Your task to perform on an android device: toggle sleep mode Image 0: 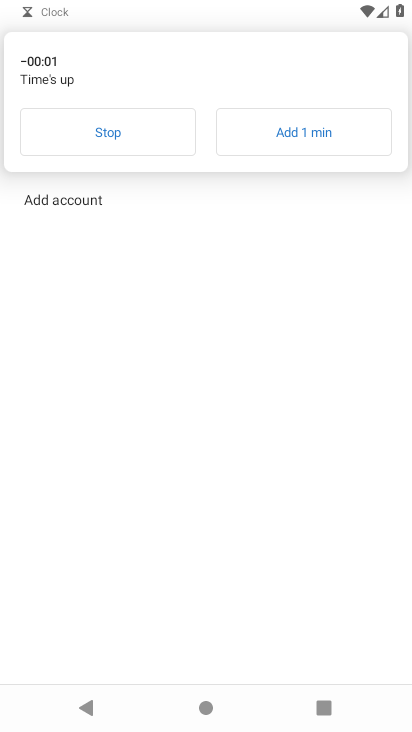
Step 0: press home button
Your task to perform on an android device: toggle sleep mode Image 1: 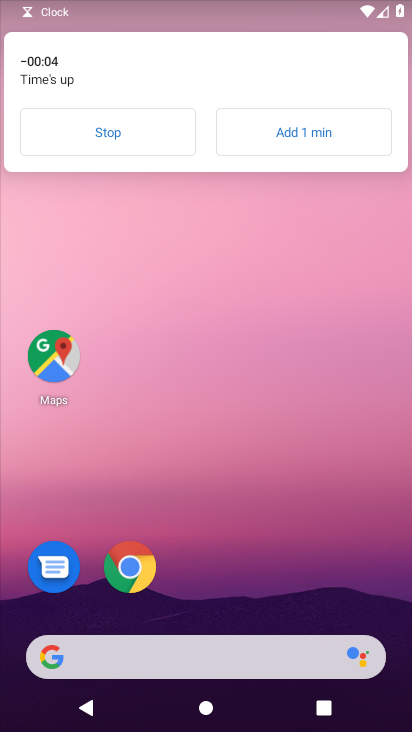
Step 1: click (138, 118)
Your task to perform on an android device: toggle sleep mode Image 2: 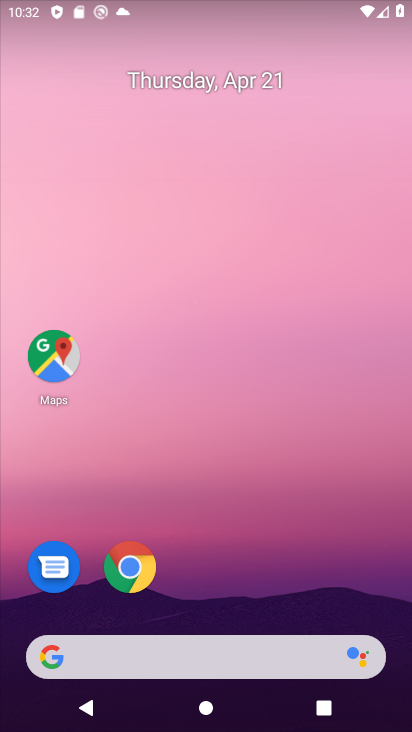
Step 2: drag from (229, 602) to (317, 55)
Your task to perform on an android device: toggle sleep mode Image 3: 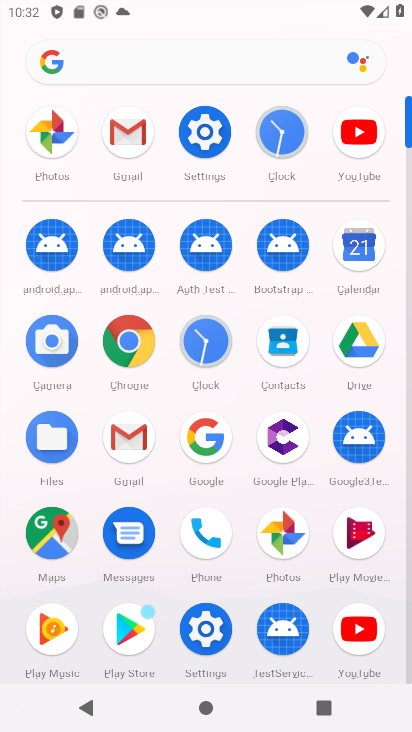
Step 3: click (199, 632)
Your task to perform on an android device: toggle sleep mode Image 4: 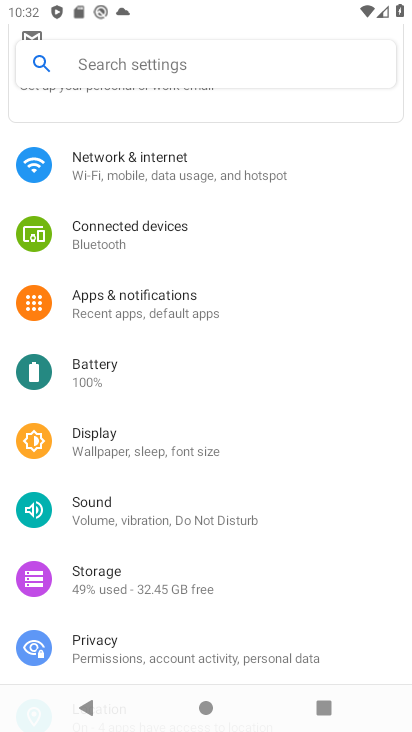
Step 4: click (202, 64)
Your task to perform on an android device: toggle sleep mode Image 5: 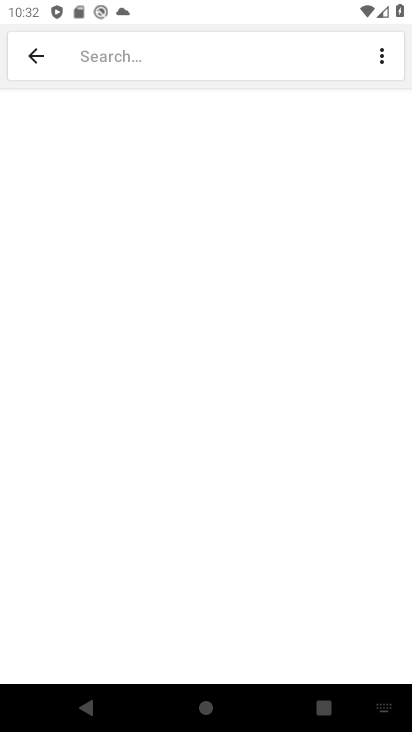
Step 5: type ""
Your task to perform on an android device: toggle sleep mode Image 6: 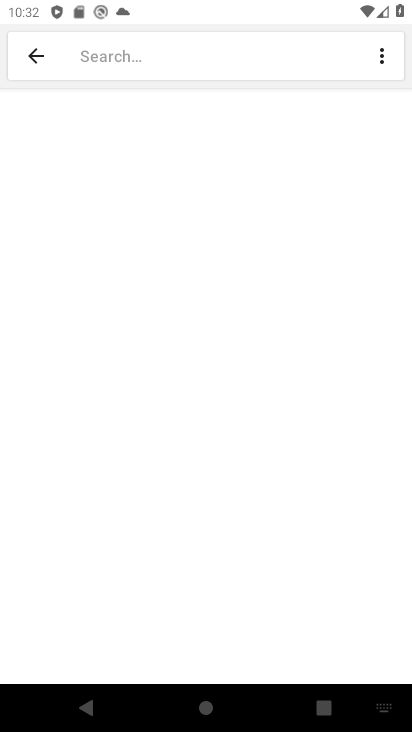
Step 6: type "sleep mode"
Your task to perform on an android device: toggle sleep mode Image 7: 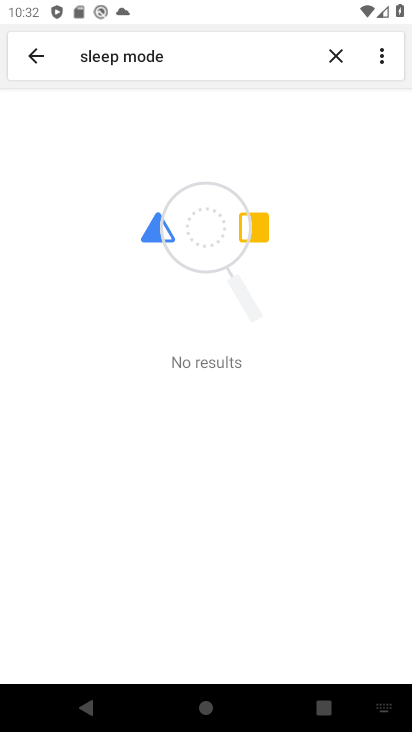
Step 7: task complete